Your task to perform on an android device: change notification settings in the gmail app Image 0: 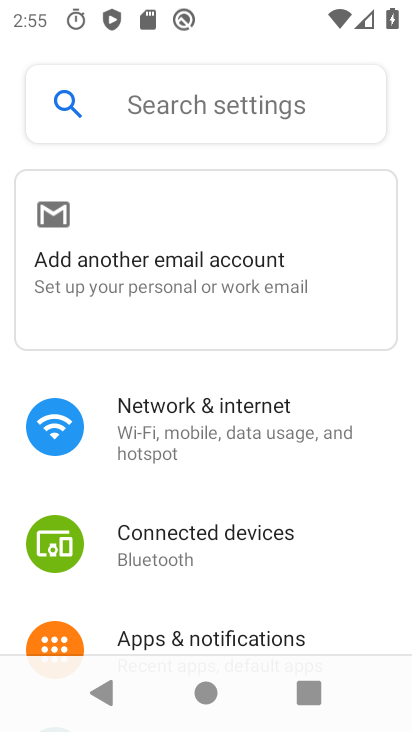
Step 0: drag from (245, 634) to (239, 346)
Your task to perform on an android device: change notification settings in the gmail app Image 1: 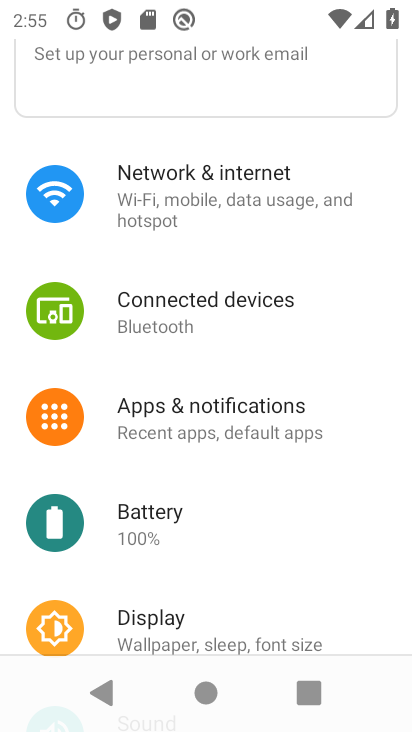
Step 1: click (228, 394)
Your task to perform on an android device: change notification settings in the gmail app Image 2: 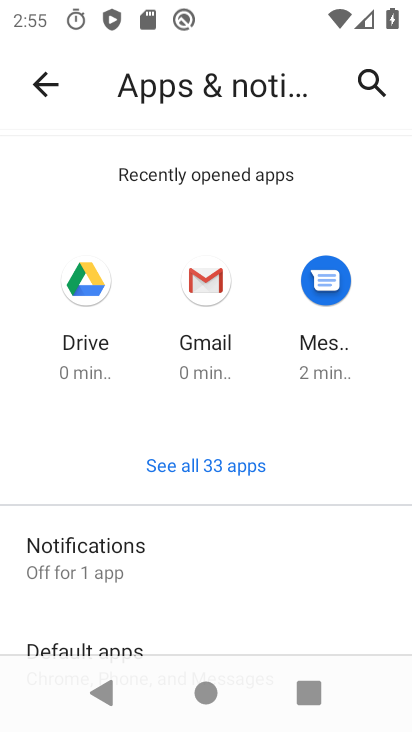
Step 2: task complete